Your task to perform on an android device: see sites visited before in the chrome app Image 0: 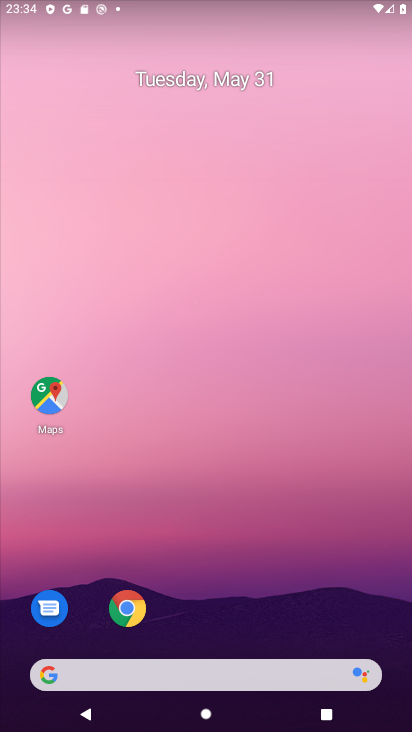
Step 0: click (119, 612)
Your task to perform on an android device: see sites visited before in the chrome app Image 1: 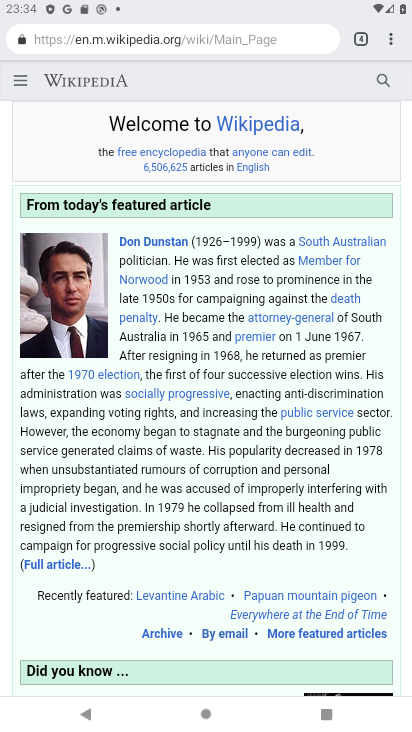
Step 1: task complete